Your task to perform on an android device: Go to Yahoo.com Image 0: 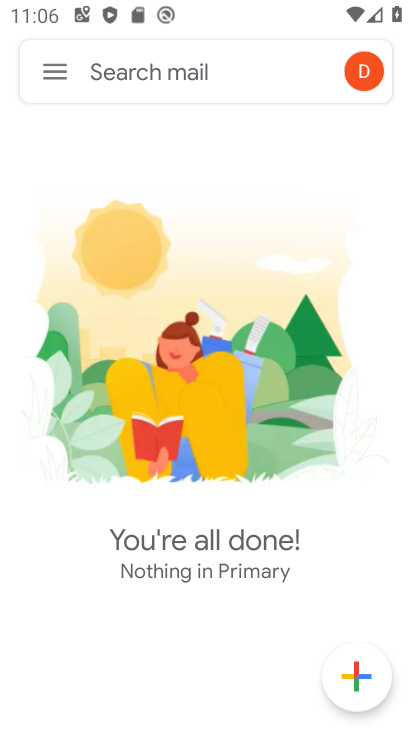
Step 0: press back button
Your task to perform on an android device: Go to Yahoo.com Image 1: 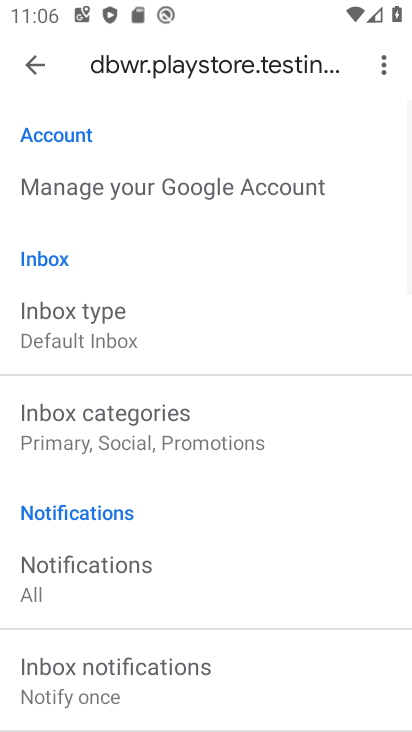
Step 1: press home button
Your task to perform on an android device: Go to Yahoo.com Image 2: 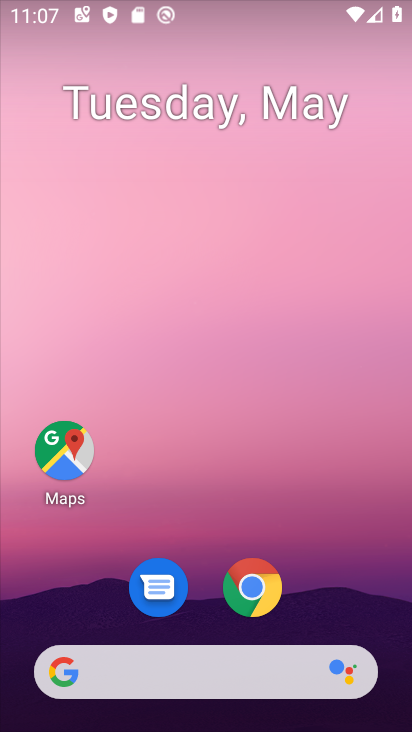
Step 2: drag from (356, 576) to (272, 29)
Your task to perform on an android device: Go to Yahoo.com Image 3: 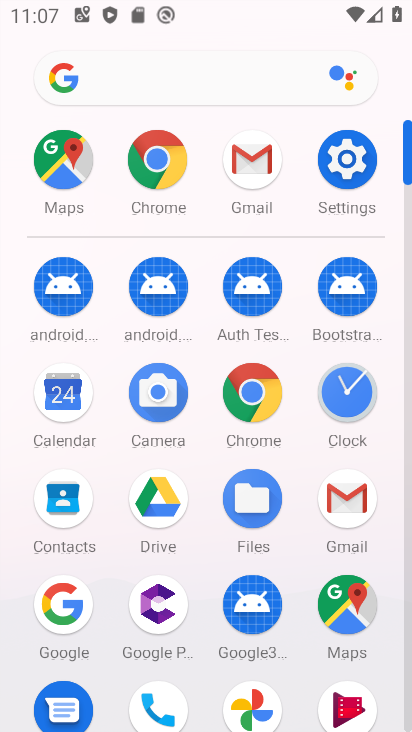
Step 3: click (155, 152)
Your task to perform on an android device: Go to Yahoo.com Image 4: 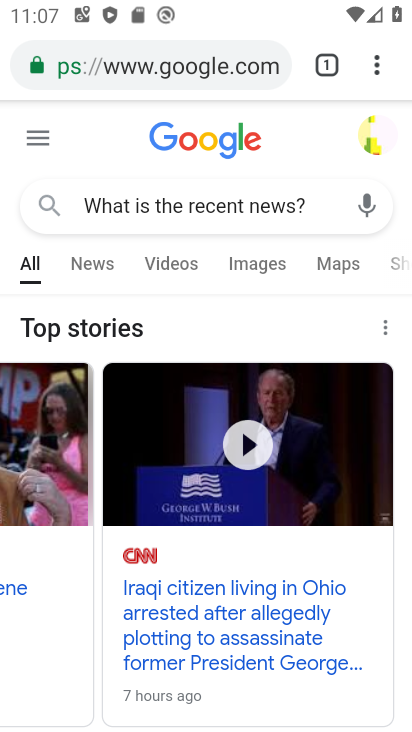
Step 4: click (198, 72)
Your task to perform on an android device: Go to Yahoo.com Image 5: 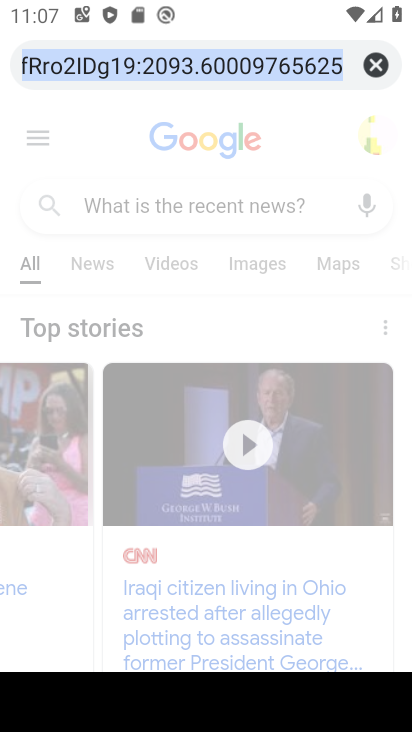
Step 5: click (371, 63)
Your task to perform on an android device: Go to Yahoo.com Image 6: 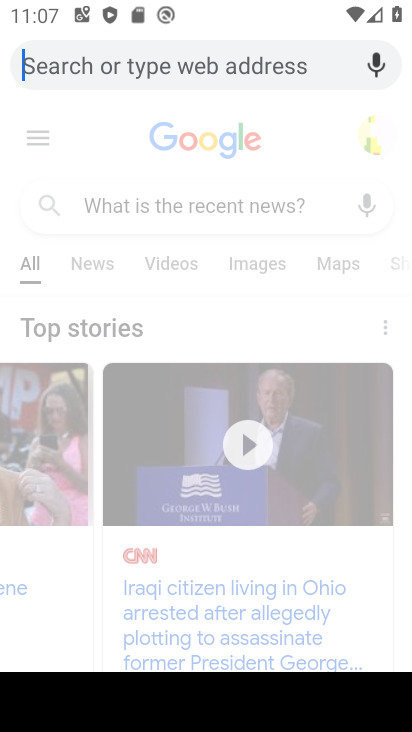
Step 6: type "Yahoo.com"
Your task to perform on an android device: Go to Yahoo.com Image 7: 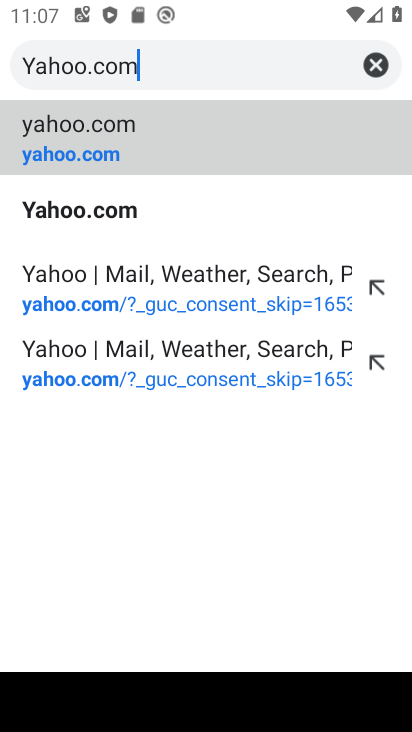
Step 7: type ""
Your task to perform on an android device: Go to Yahoo.com Image 8: 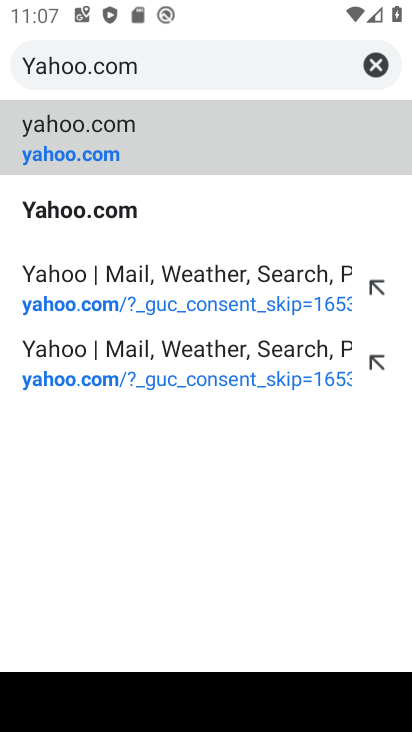
Step 8: click (137, 138)
Your task to perform on an android device: Go to Yahoo.com Image 9: 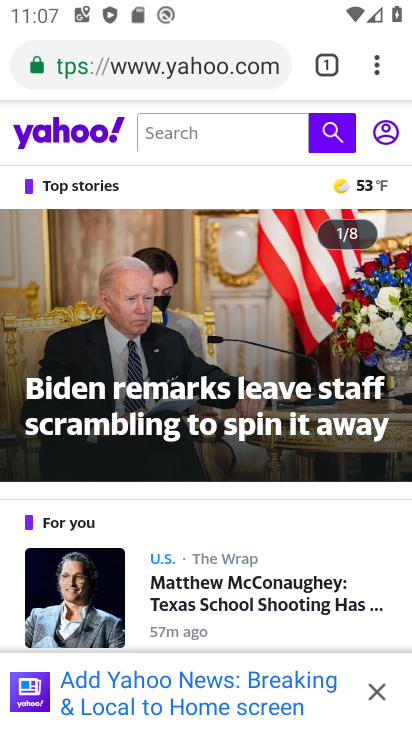
Step 9: task complete